Your task to perform on an android device: star an email in the gmail app Image 0: 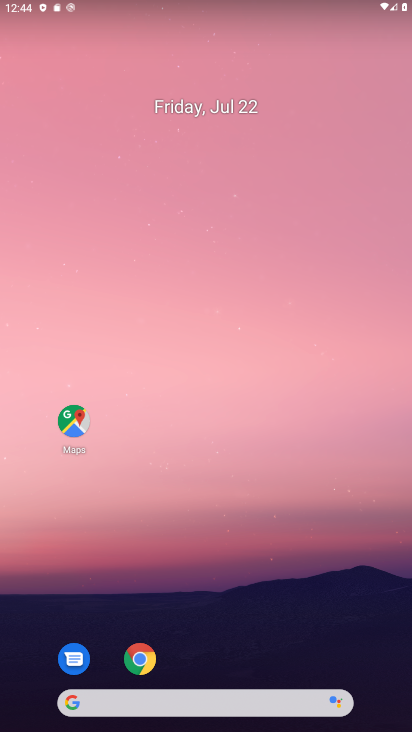
Step 0: drag from (246, 639) to (203, 62)
Your task to perform on an android device: star an email in the gmail app Image 1: 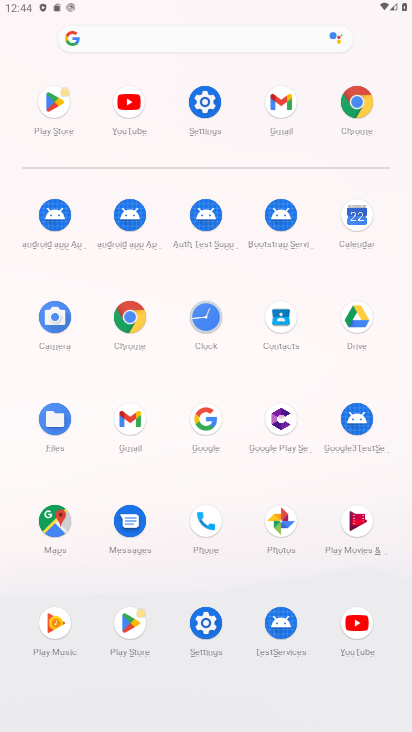
Step 1: click (136, 425)
Your task to perform on an android device: star an email in the gmail app Image 2: 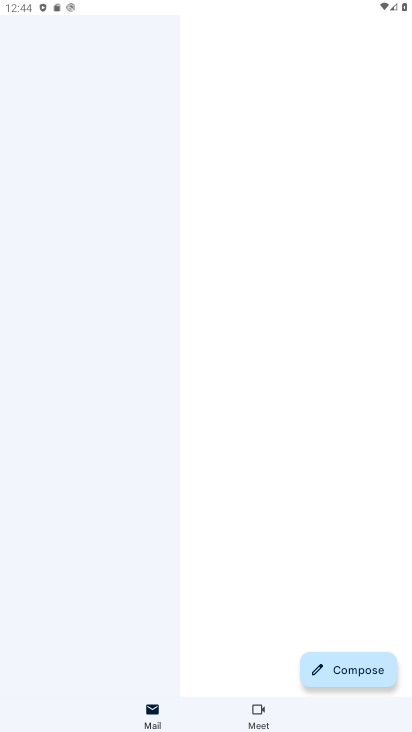
Step 2: task complete